Your task to perform on an android device: open a bookmark in the chrome app Image 0: 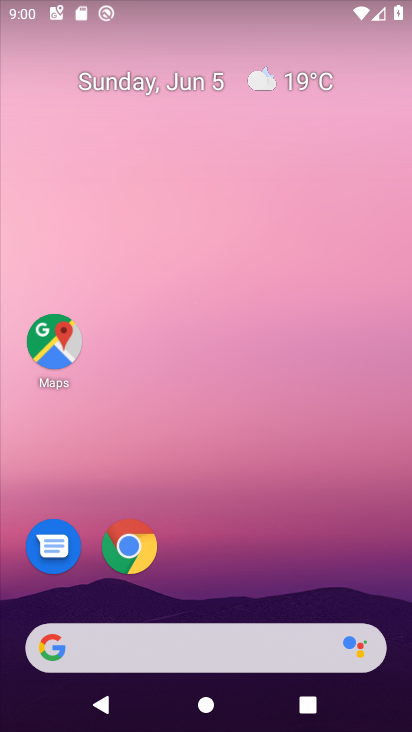
Step 0: drag from (320, 475) to (200, 6)
Your task to perform on an android device: open a bookmark in the chrome app Image 1: 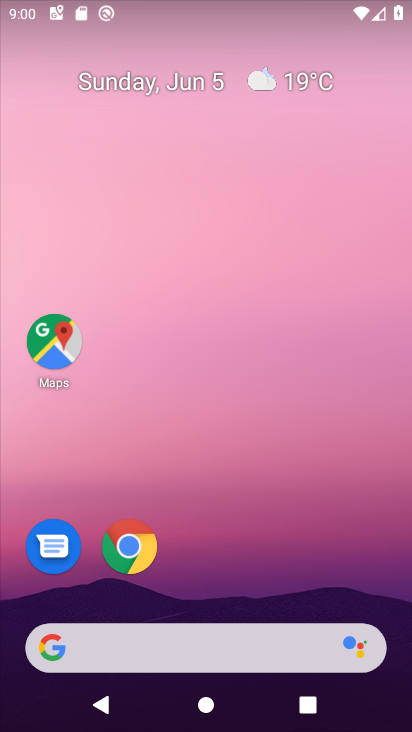
Step 1: drag from (277, 440) to (223, 78)
Your task to perform on an android device: open a bookmark in the chrome app Image 2: 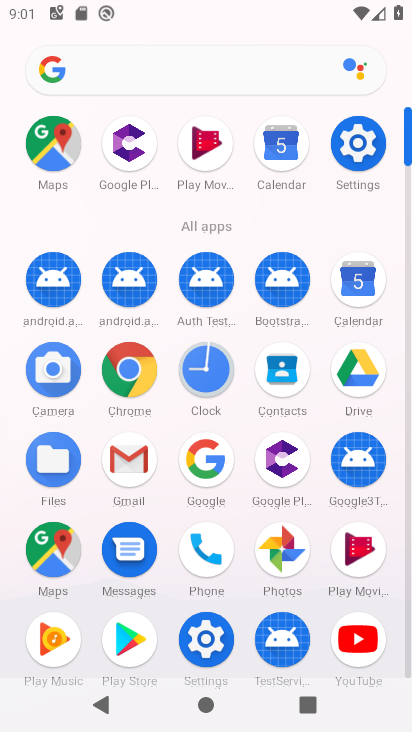
Step 2: click (238, 299)
Your task to perform on an android device: open a bookmark in the chrome app Image 3: 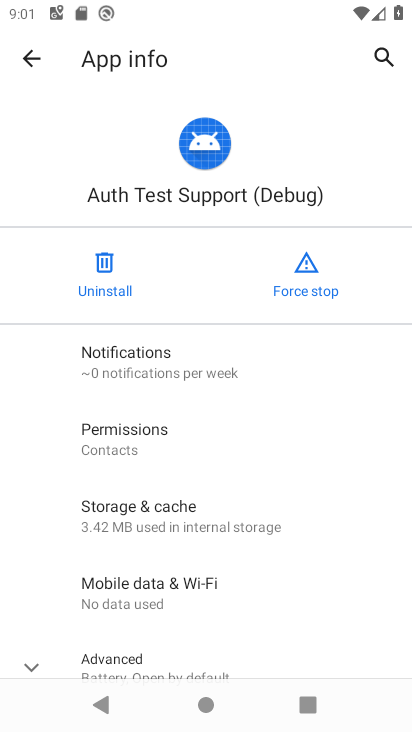
Step 3: press back button
Your task to perform on an android device: open a bookmark in the chrome app Image 4: 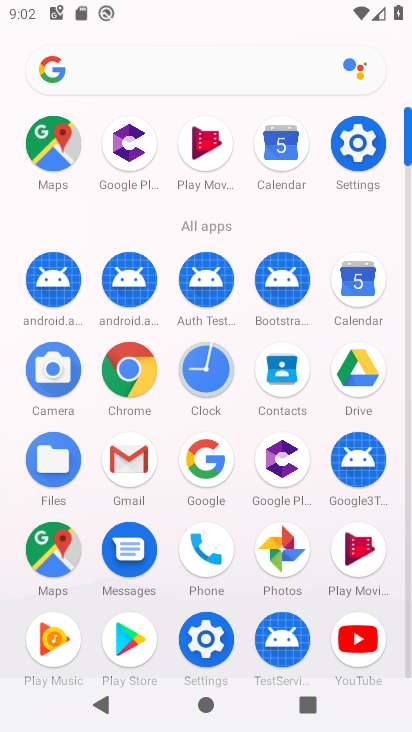
Step 4: click (127, 375)
Your task to perform on an android device: open a bookmark in the chrome app Image 5: 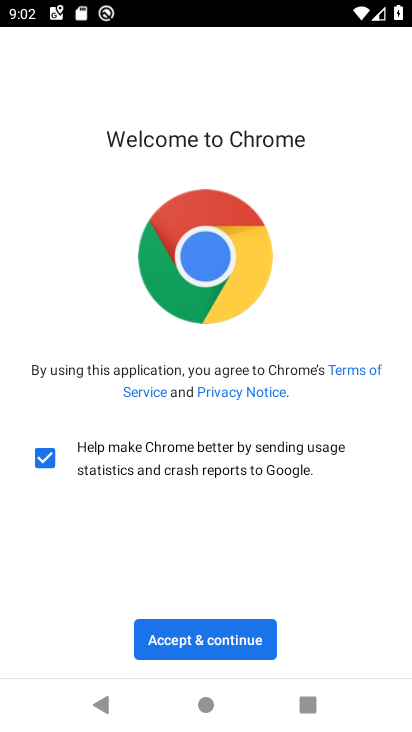
Step 5: click (174, 635)
Your task to perform on an android device: open a bookmark in the chrome app Image 6: 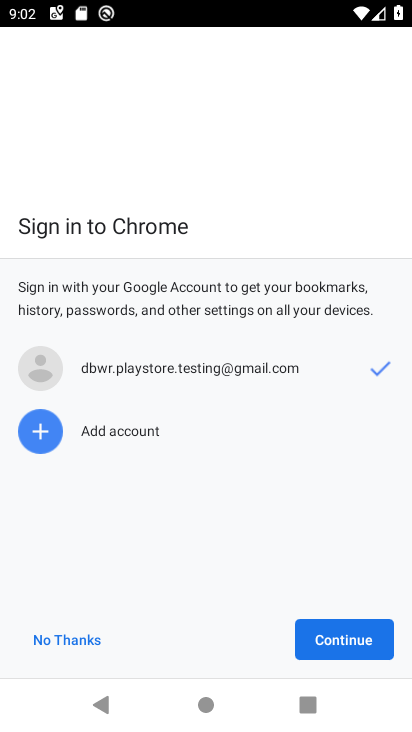
Step 6: click (344, 642)
Your task to perform on an android device: open a bookmark in the chrome app Image 7: 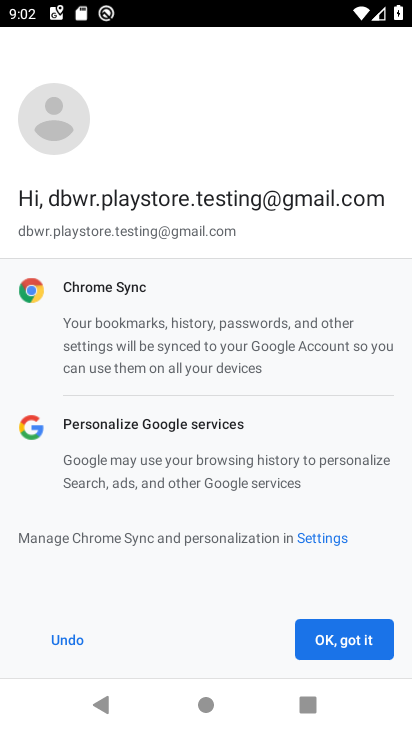
Step 7: click (344, 642)
Your task to perform on an android device: open a bookmark in the chrome app Image 8: 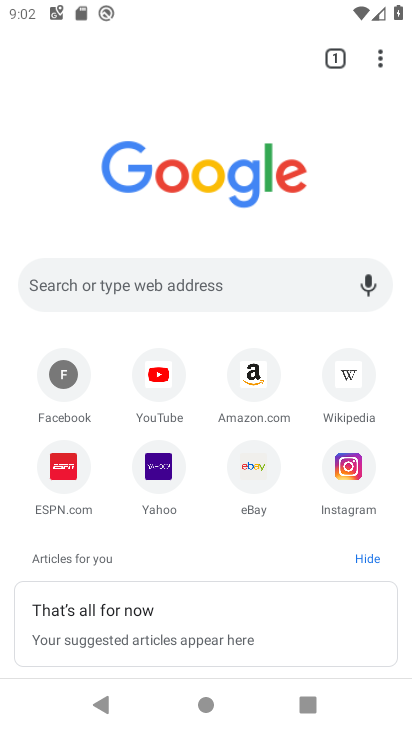
Step 8: task complete